Your task to perform on an android device: open app "Spotify: Music and Podcasts" Image 0: 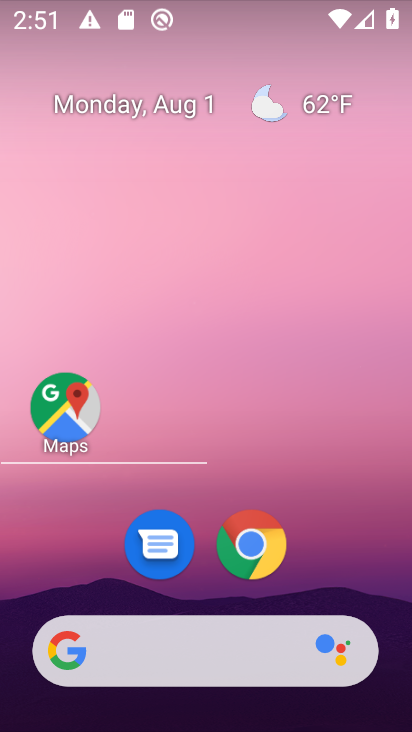
Step 0: drag from (204, 211) to (96, 17)
Your task to perform on an android device: open app "Spotify: Music and Podcasts" Image 1: 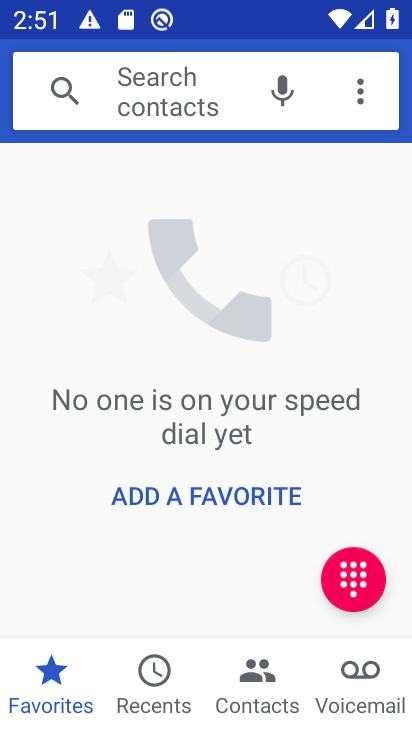
Step 1: press home button
Your task to perform on an android device: open app "Spotify: Music and Podcasts" Image 2: 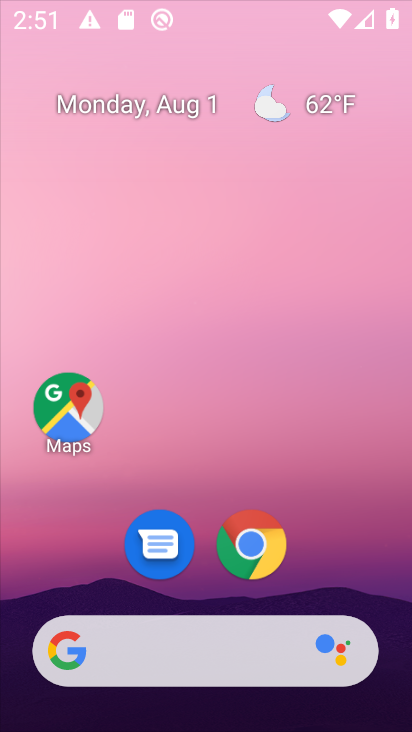
Step 2: drag from (384, 655) to (205, 88)
Your task to perform on an android device: open app "Spotify: Music and Podcasts" Image 3: 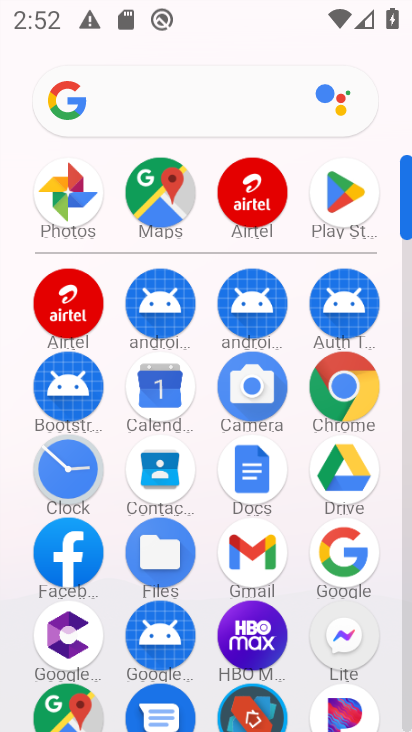
Step 3: click (351, 183)
Your task to perform on an android device: open app "Spotify: Music and Podcasts" Image 4: 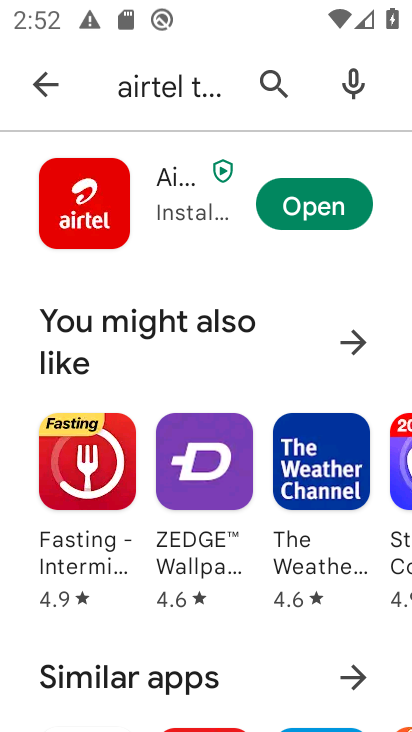
Step 4: press back button
Your task to perform on an android device: open app "Spotify: Music and Podcasts" Image 5: 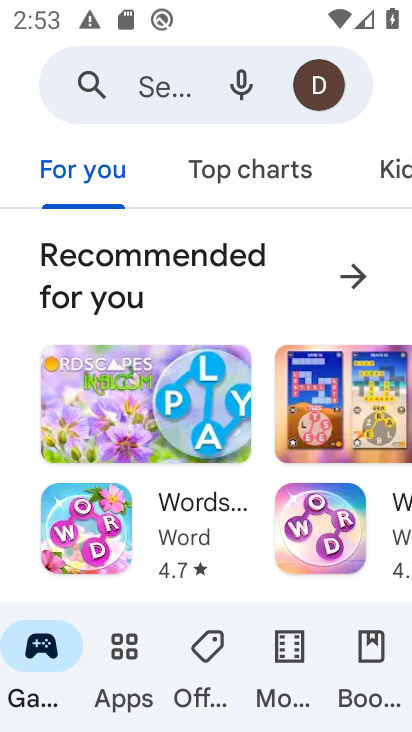
Step 5: click (187, 100)
Your task to perform on an android device: open app "Spotify: Music and Podcasts" Image 6: 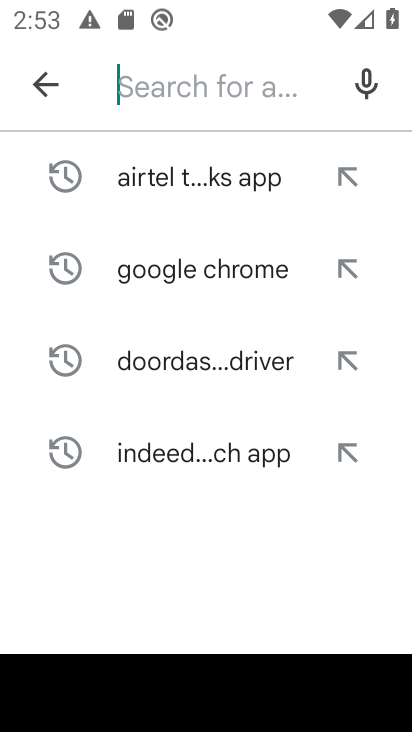
Step 6: type "Spotify: Music and Podcasts"
Your task to perform on an android device: open app "Spotify: Music and Podcasts" Image 7: 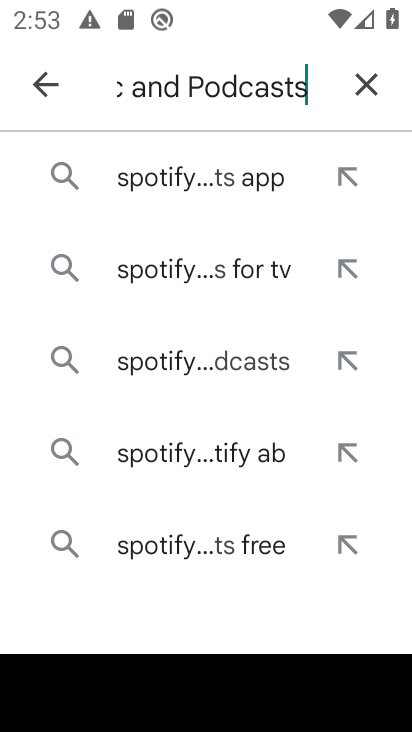
Step 7: click (183, 176)
Your task to perform on an android device: open app "Spotify: Music and Podcasts" Image 8: 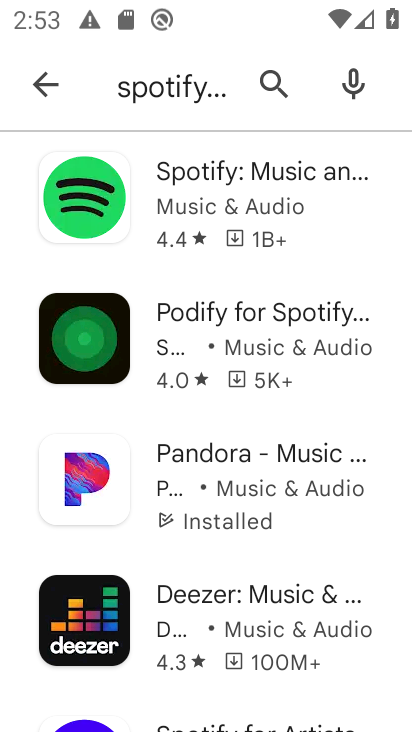
Step 8: click (228, 180)
Your task to perform on an android device: open app "Spotify: Music and Podcasts" Image 9: 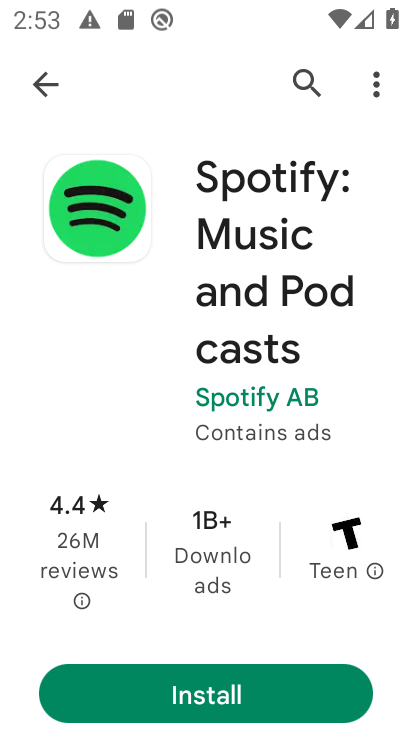
Step 9: task complete